Your task to perform on an android device: show emergency info Image 0: 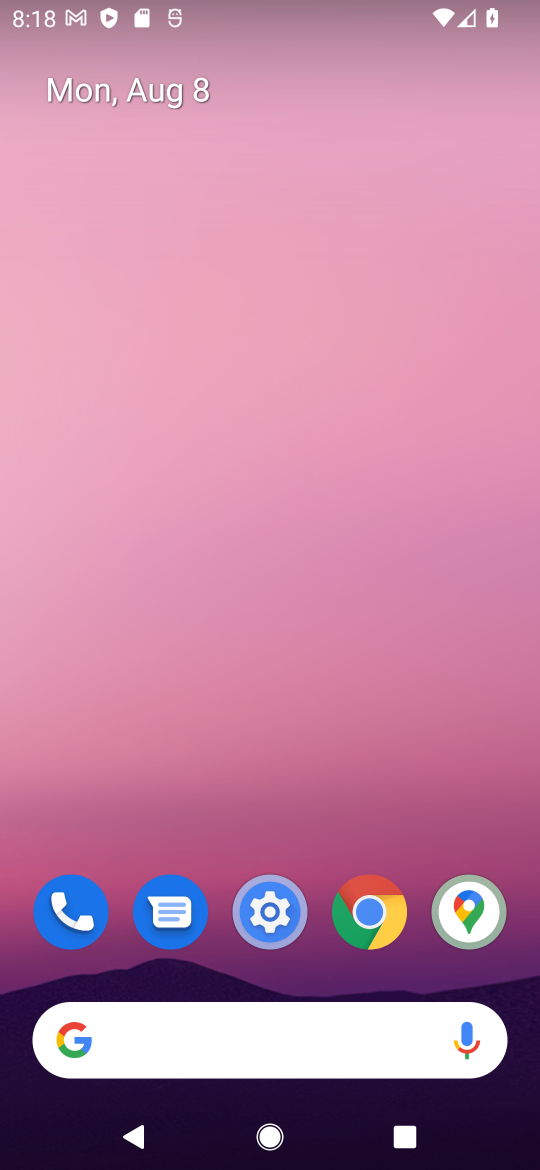
Step 0: drag from (510, 883) to (271, 4)
Your task to perform on an android device: show emergency info Image 1: 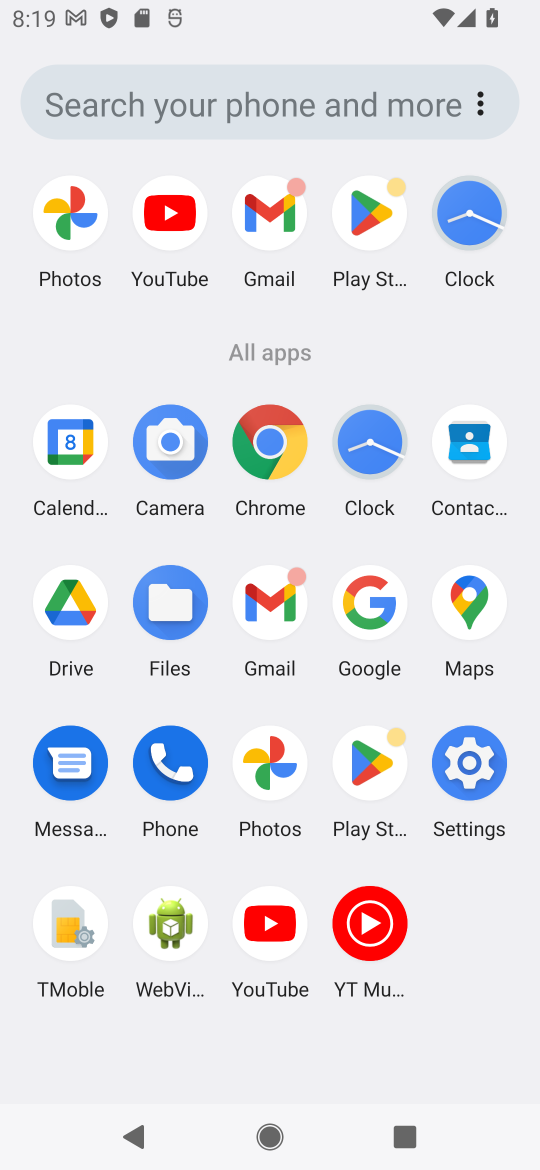
Step 1: click (484, 779)
Your task to perform on an android device: show emergency info Image 2: 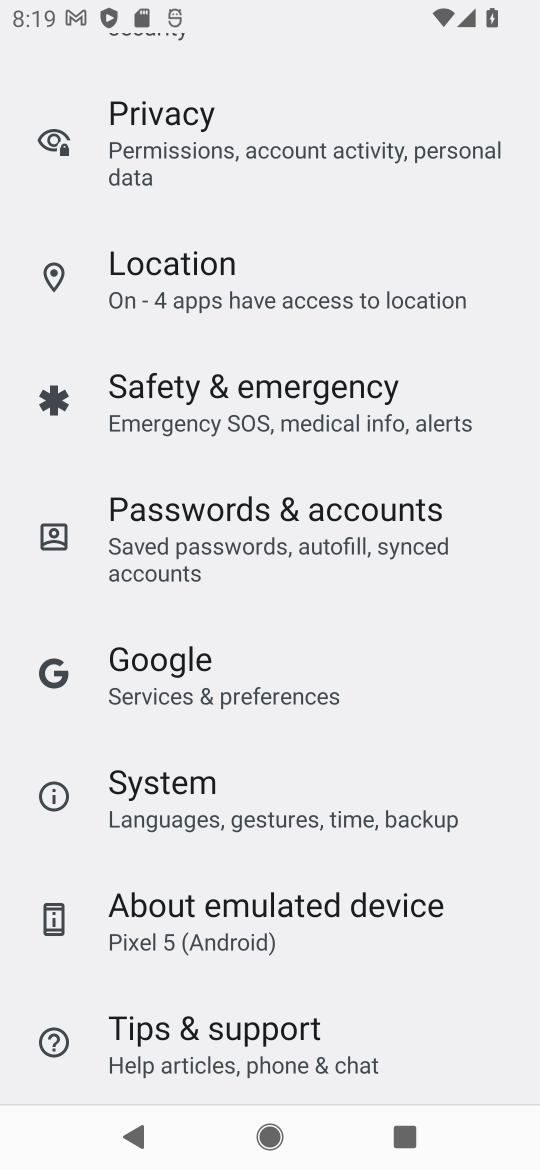
Step 2: drag from (214, 231) to (198, 1122)
Your task to perform on an android device: show emergency info Image 3: 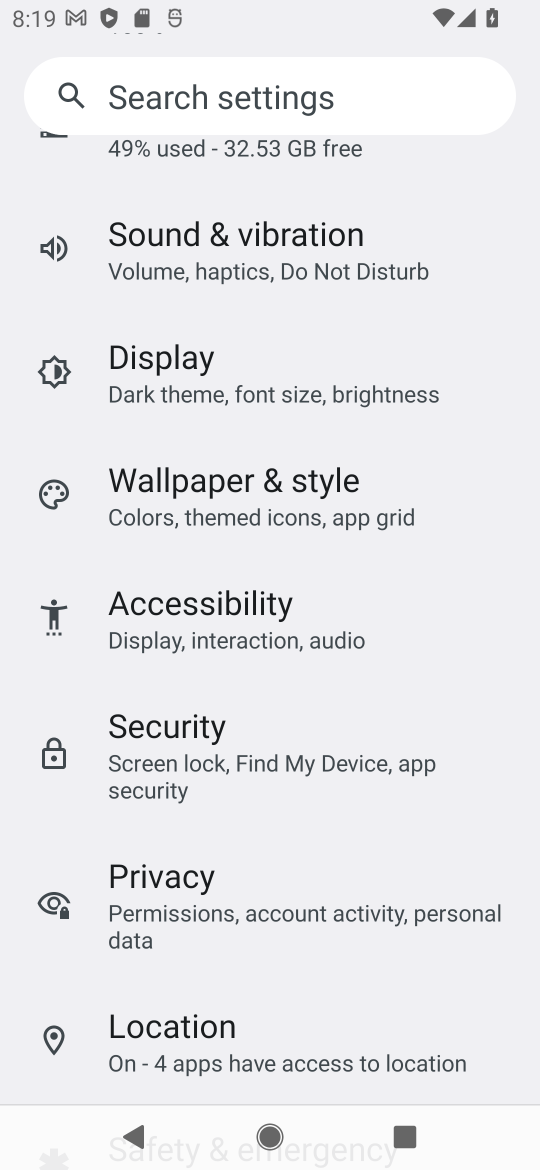
Step 3: drag from (235, 424) to (276, 915)
Your task to perform on an android device: show emergency info Image 4: 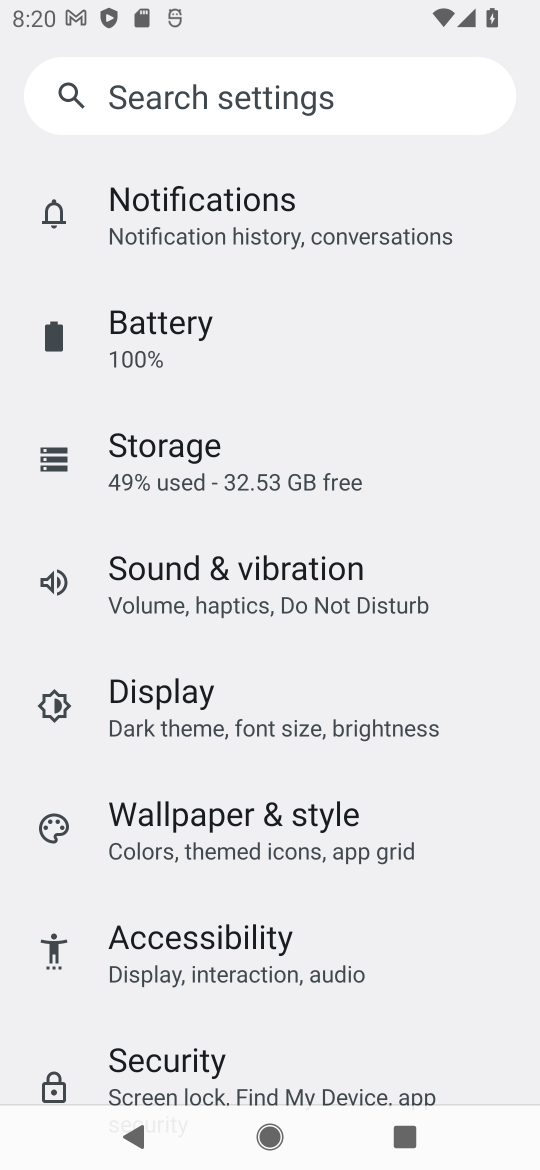
Step 4: drag from (210, 467) to (247, 975)
Your task to perform on an android device: show emergency info Image 5: 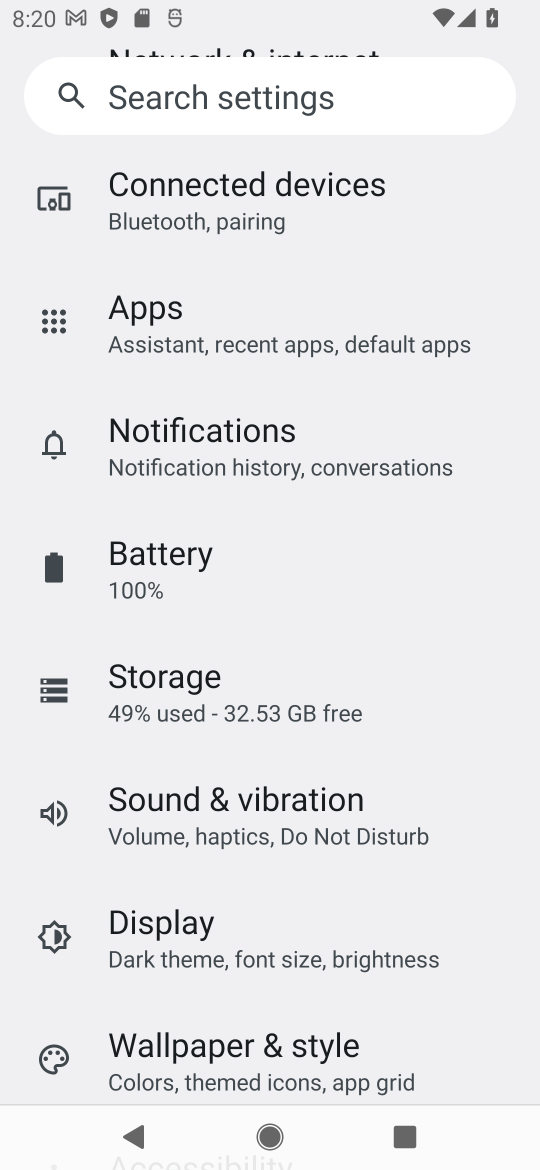
Step 5: drag from (177, 1032) to (273, 0)
Your task to perform on an android device: show emergency info Image 6: 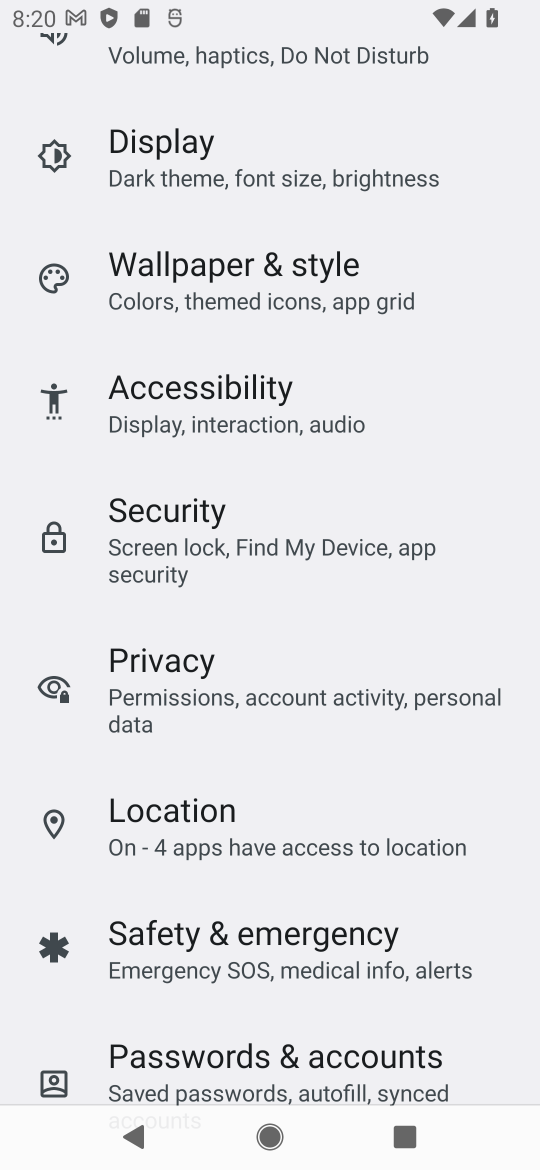
Step 6: drag from (224, 1025) to (286, 95)
Your task to perform on an android device: show emergency info Image 7: 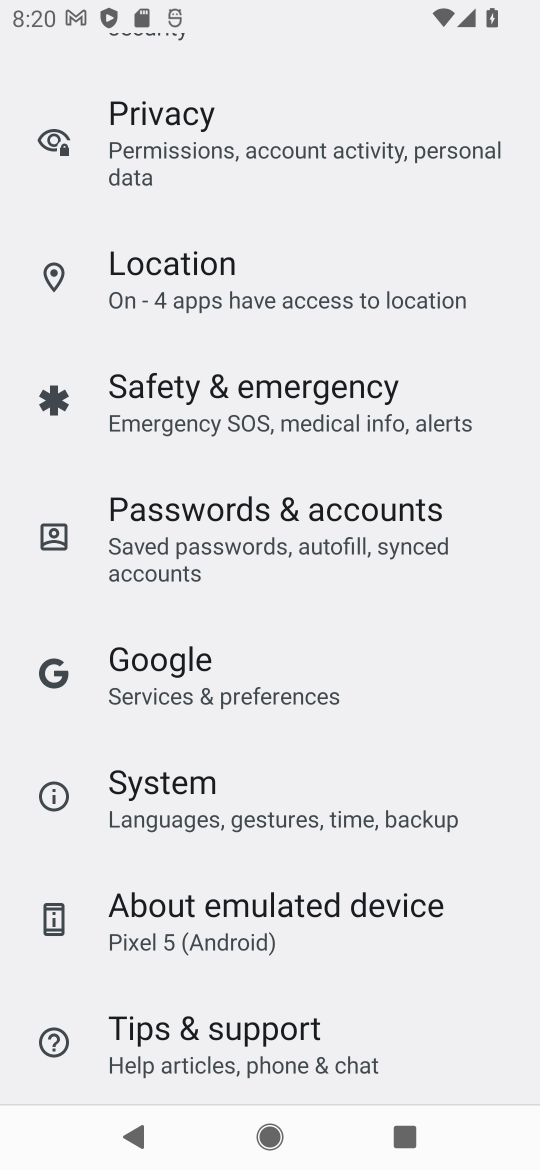
Step 7: click (213, 953)
Your task to perform on an android device: show emergency info Image 8: 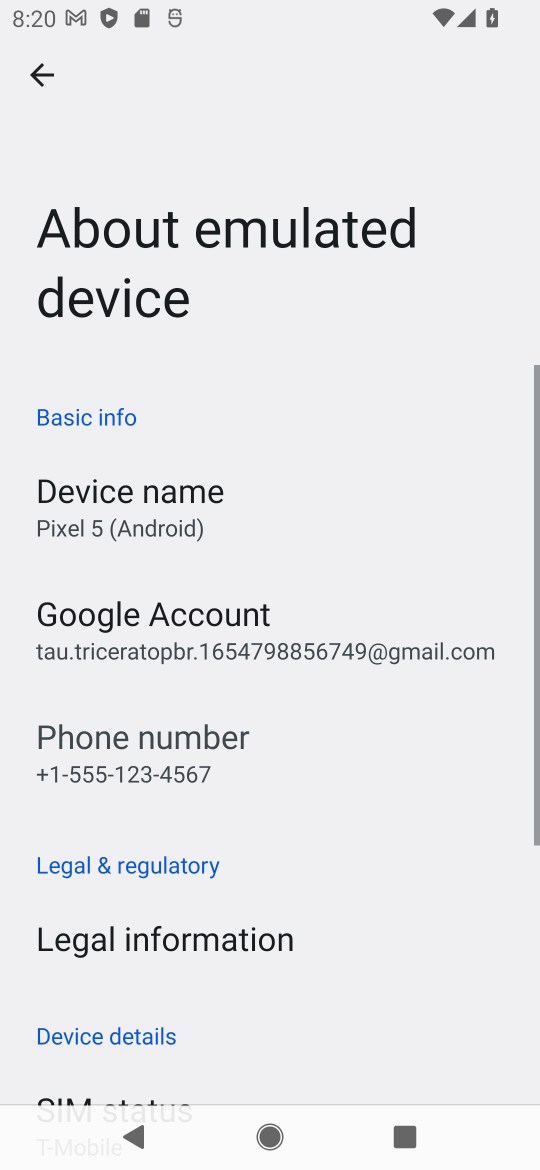
Step 8: task complete